Your task to perform on an android device: Go to internet settings Image 0: 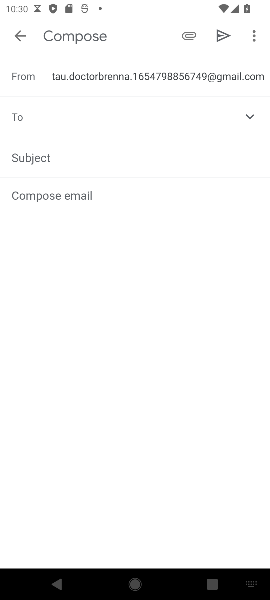
Step 0: press home button
Your task to perform on an android device: Go to internet settings Image 1: 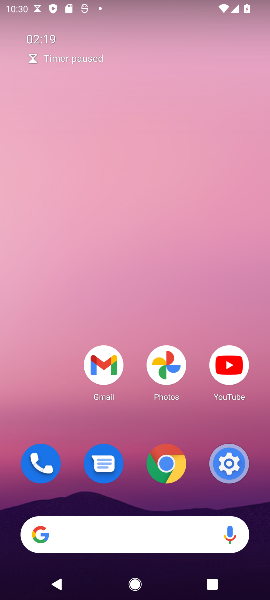
Step 1: click (234, 463)
Your task to perform on an android device: Go to internet settings Image 2: 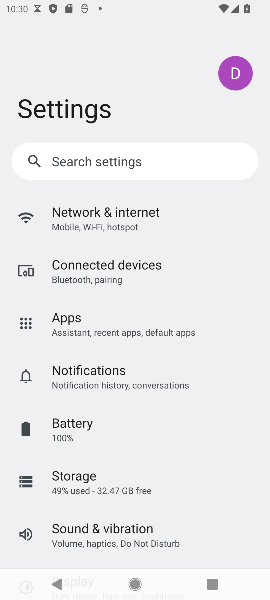
Step 2: click (112, 223)
Your task to perform on an android device: Go to internet settings Image 3: 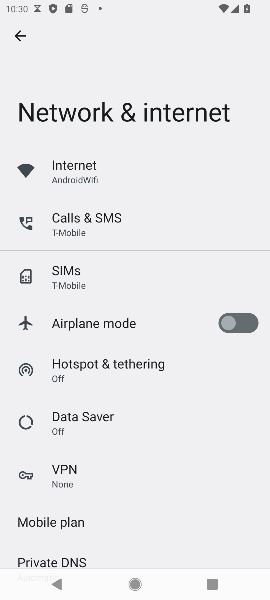
Step 3: task complete